Your task to perform on an android device: Open the stopwatch Image 0: 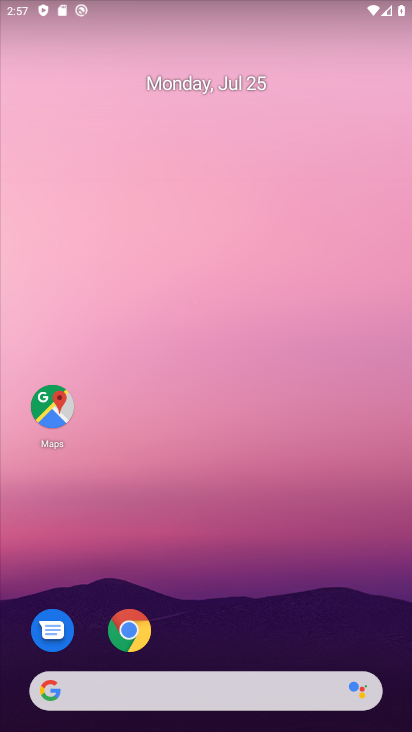
Step 0: click (186, 89)
Your task to perform on an android device: Open the stopwatch Image 1: 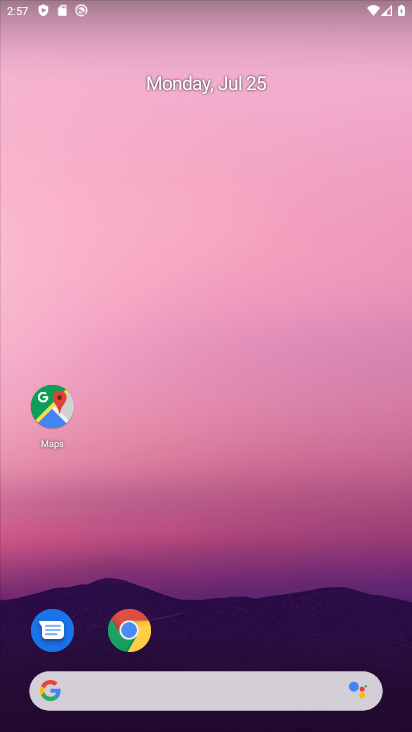
Step 1: drag from (233, 549) to (221, 22)
Your task to perform on an android device: Open the stopwatch Image 2: 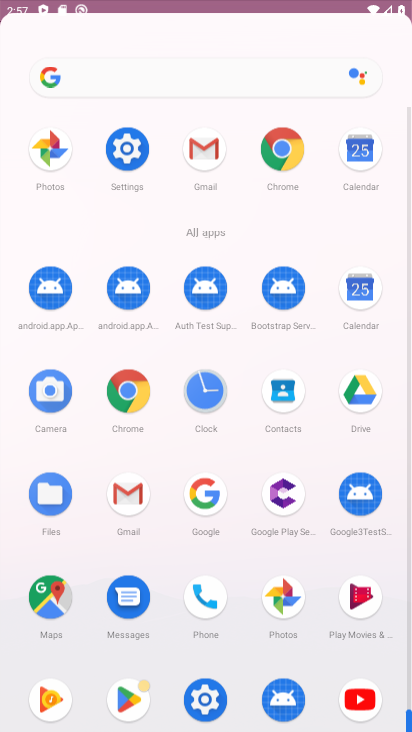
Step 2: drag from (197, 652) to (197, 19)
Your task to perform on an android device: Open the stopwatch Image 3: 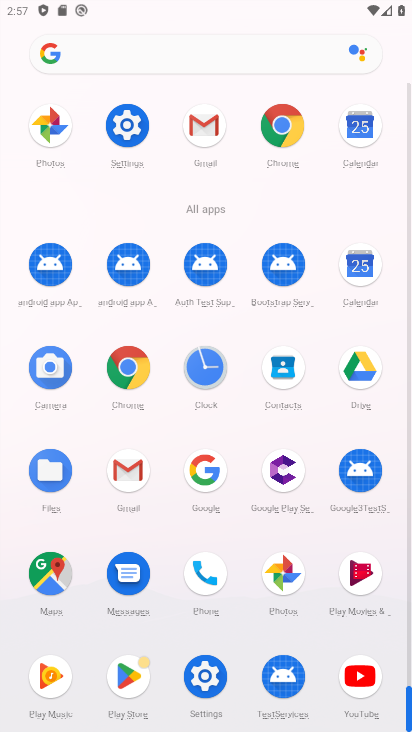
Step 3: click (221, 374)
Your task to perform on an android device: Open the stopwatch Image 4: 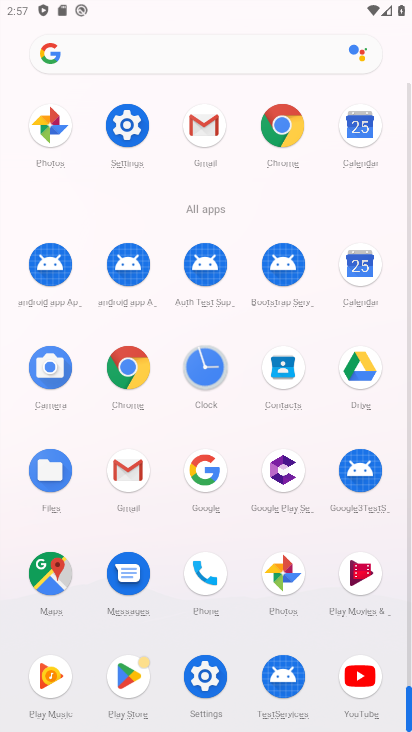
Step 4: click (226, 380)
Your task to perform on an android device: Open the stopwatch Image 5: 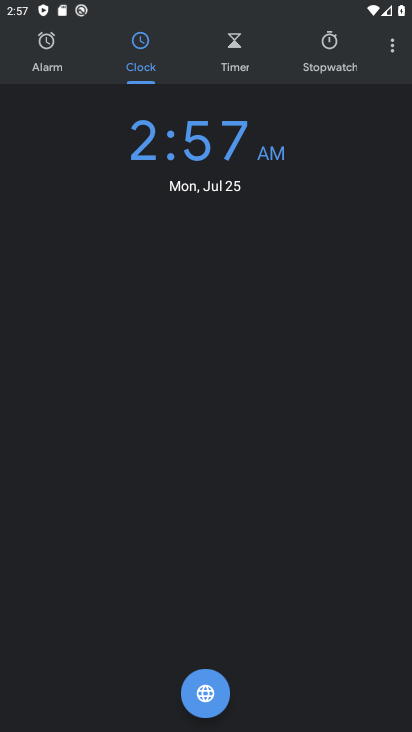
Step 5: click (332, 63)
Your task to perform on an android device: Open the stopwatch Image 6: 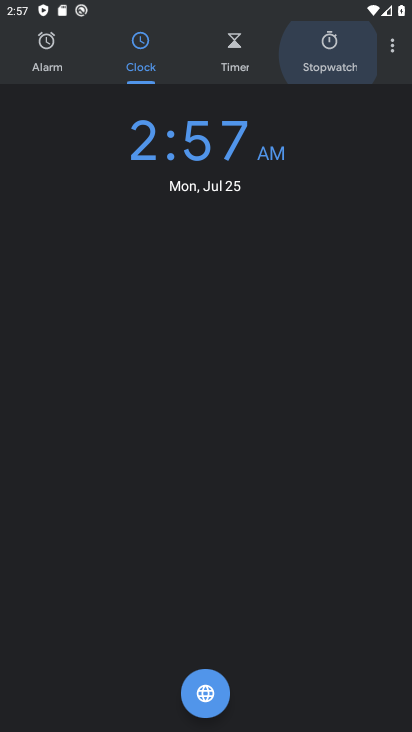
Step 6: click (334, 61)
Your task to perform on an android device: Open the stopwatch Image 7: 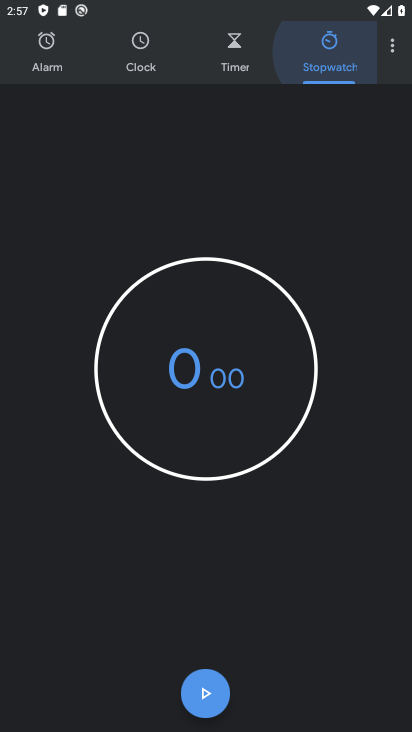
Step 7: click (336, 61)
Your task to perform on an android device: Open the stopwatch Image 8: 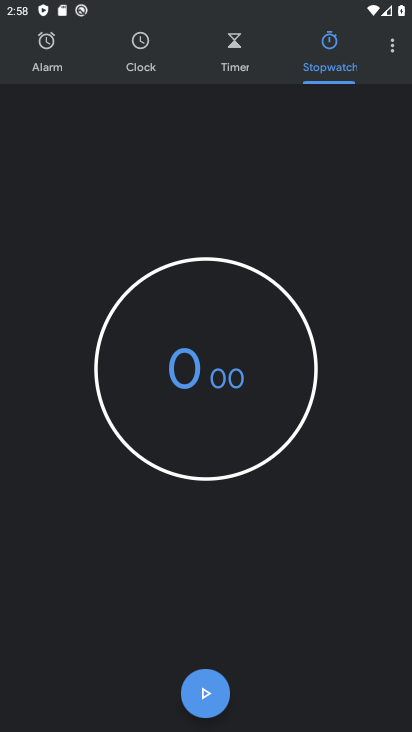
Step 8: click (202, 689)
Your task to perform on an android device: Open the stopwatch Image 9: 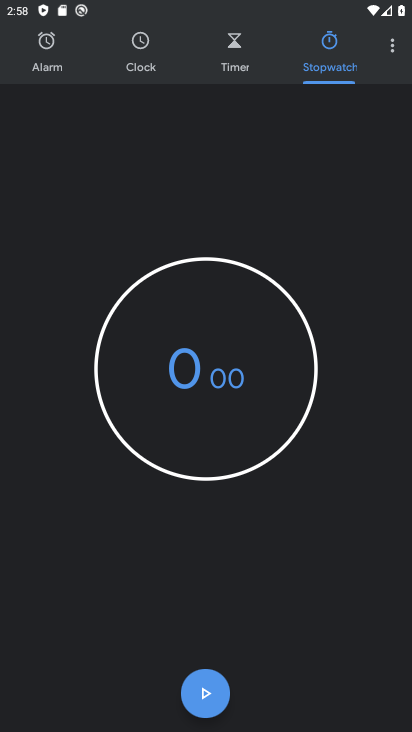
Step 9: click (202, 689)
Your task to perform on an android device: Open the stopwatch Image 10: 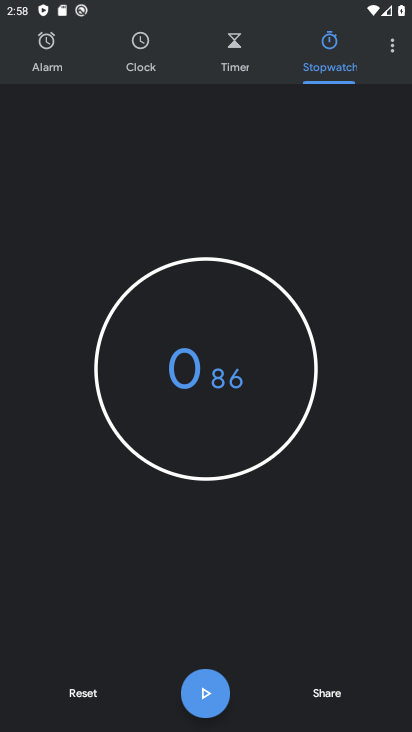
Step 10: click (203, 689)
Your task to perform on an android device: Open the stopwatch Image 11: 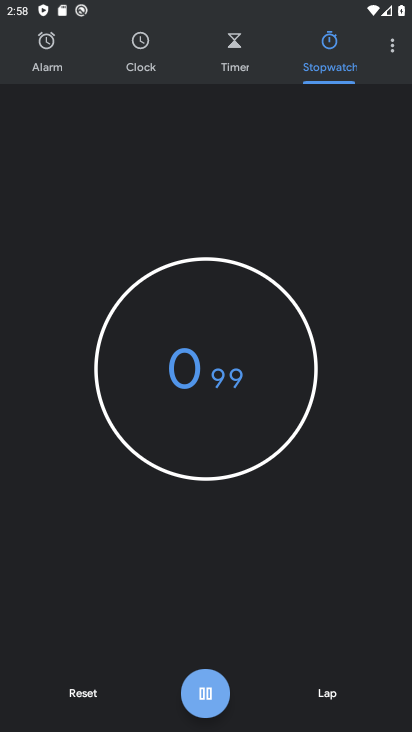
Step 11: click (207, 695)
Your task to perform on an android device: Open the stopwatch Image 12: 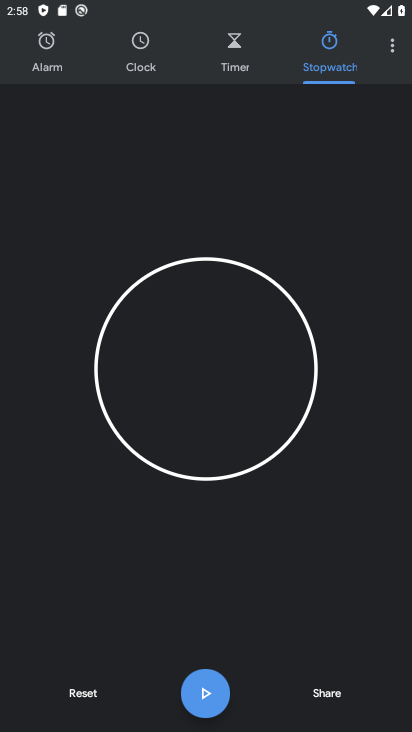
Step 12: task complete